Your task to perform on an android device: turn on the 12-hour format for clock Image 0: 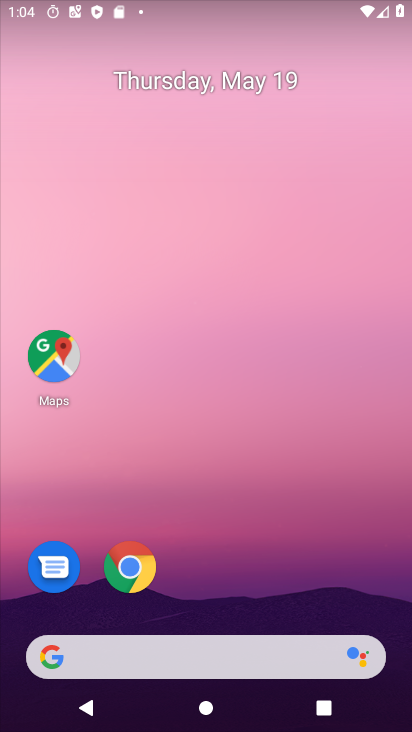
Step 0: press home button
Your task to perform on an android device: turn on the 12-hour format for clock Image 1: 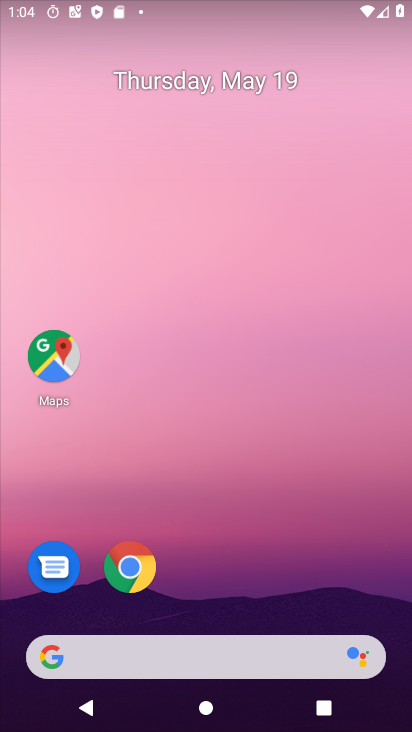
Step 1: drag from (157, 653) to (292, 332)
Your task to perform on an android device: turn on the 12-hour format for clock Image 2: 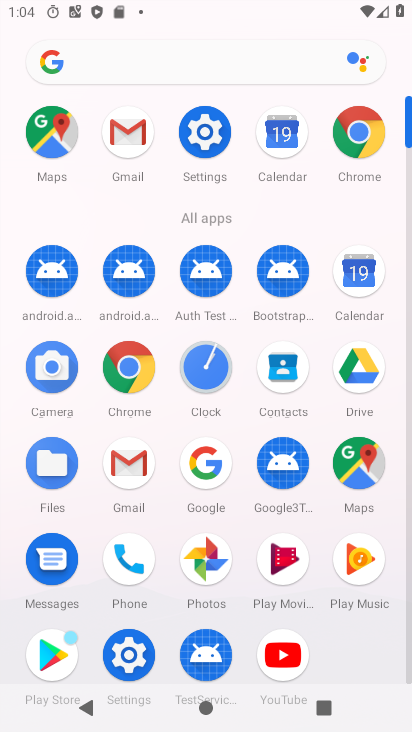
Step 2: click (214, 379)
Your task to perform on an android device: turn on the 12-hour format for clock Image 3: 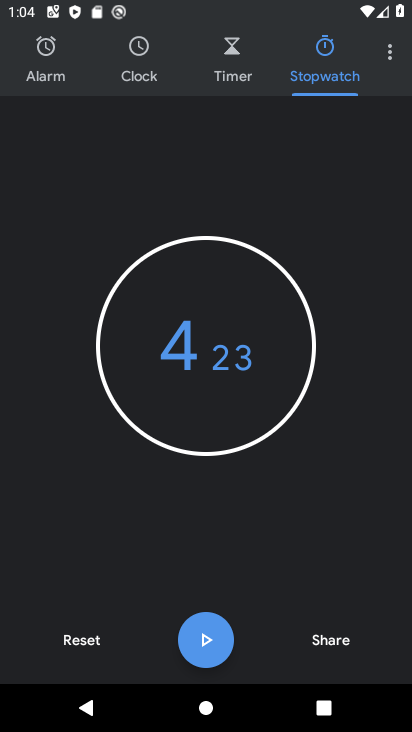
Step 3: click (393, 60)
Your task to perform on an android device: turn on the 12-hour format for clock Image 4: 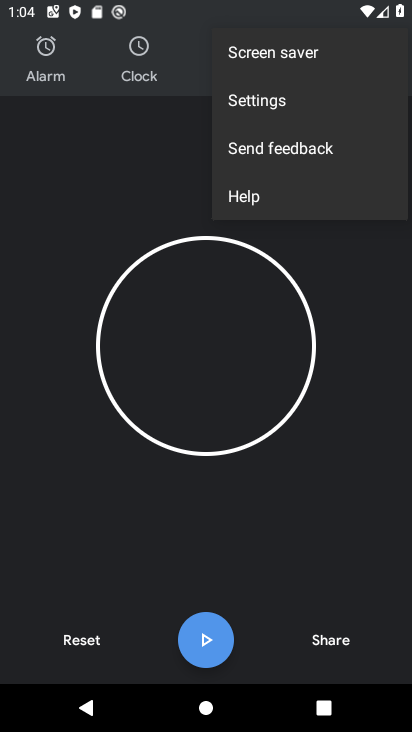
Step 4: click (286, 107)
Your task to perform on an android device: turn on the 12-hour format for clock Image 5: 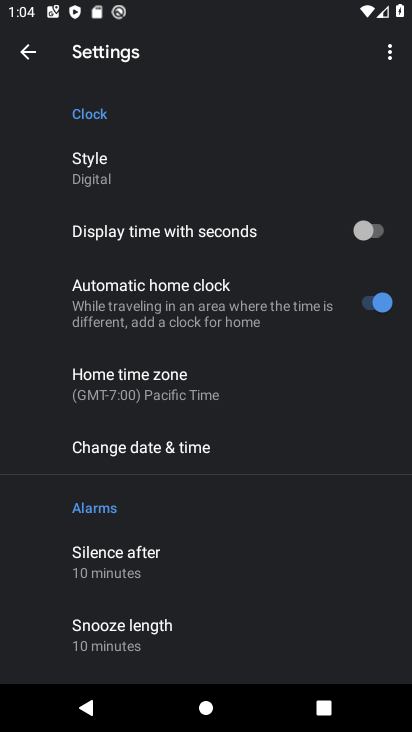
Step 5: click (179, 450)
Your task to perform on an android device: turn on the 12-hour format for clock Image 6: 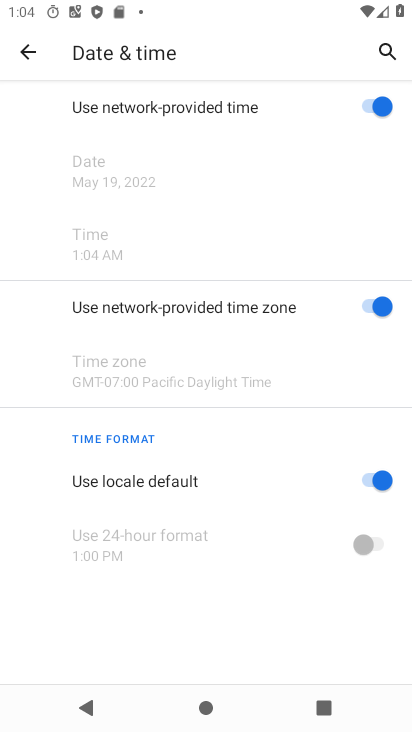
Step 6: task complete